Your task to perform on an android device: Open the map Image 0: 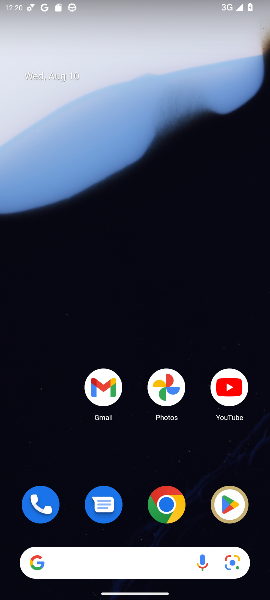
Step 0: press home button
Your task to perform on an android device: Open the map Image 1: 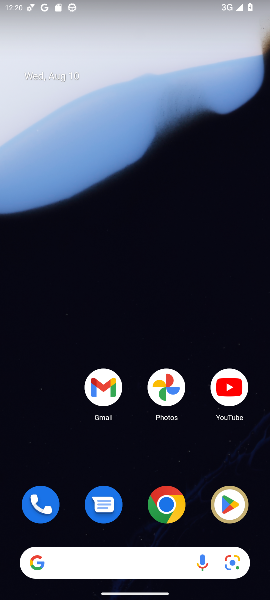
Step 1: drag from (136, 511) to (112, 219)
Your task to perform on an android device: Open the map Image 2: 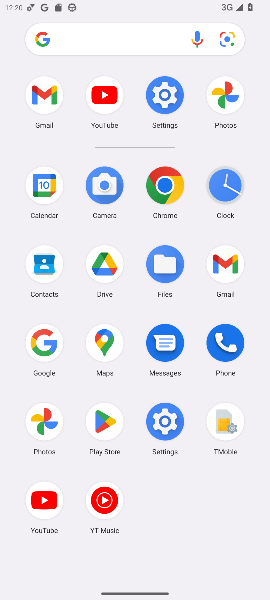
Step 2: click (105, 346)
Your task to perform on an android device: Open the map Image 3: 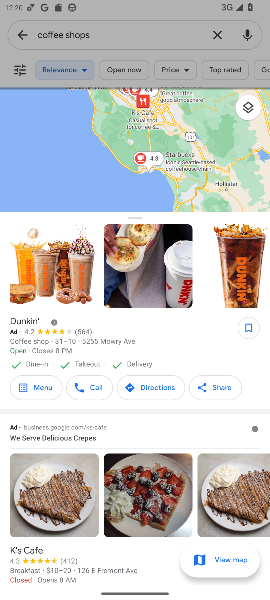
Step 3: task complete